Your task to perform on an android device: turn on data saver in the chrome app Image 0: 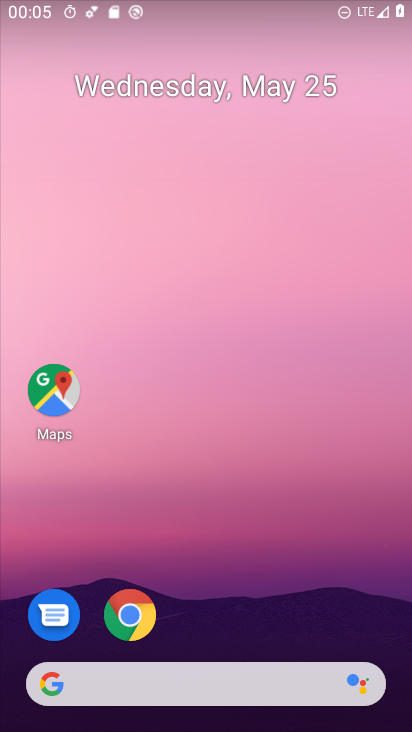
Step 0: drag from (322, 663) to (366, 17)
Your task to perform on an android device: turn on data saver in the chrome app Image 1: 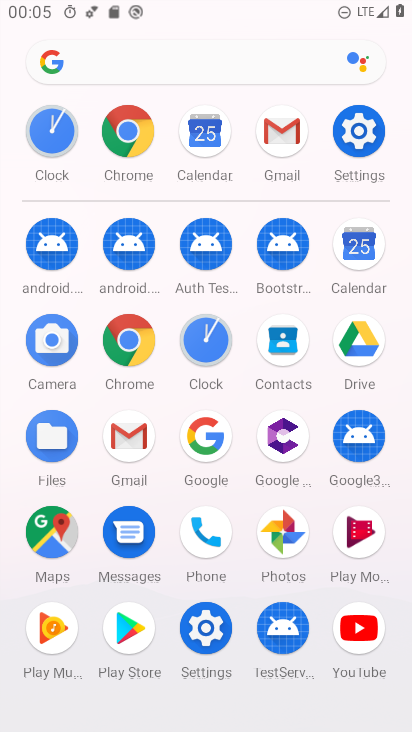
Step 1: click (136, 149)
Your task to perform on an android device: turn on data saver in the chrome app Image 2: 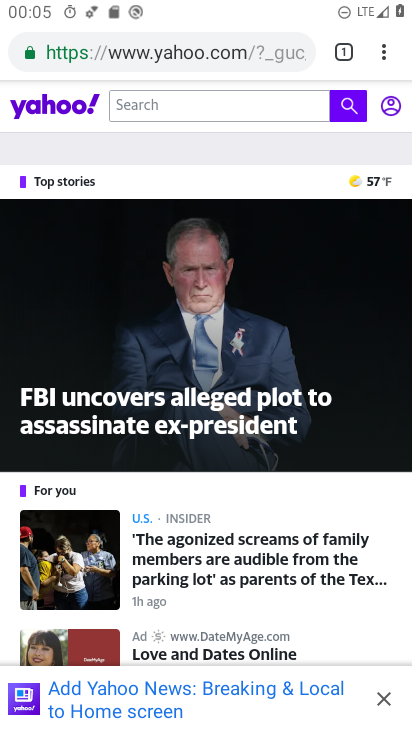
Step 2: click (376, 62)
Your task to perform on an android device: turn on data saver in the chrome app Image 3: 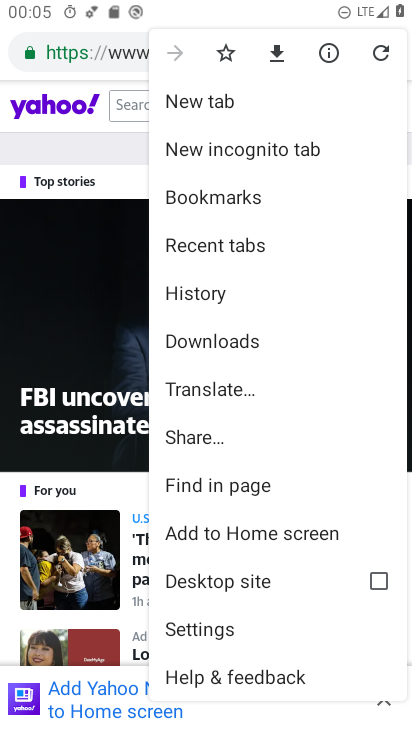
Step 3: click (214, 629)
Your task to perform on an android device: turn on data saver in the chrome app Image 4: 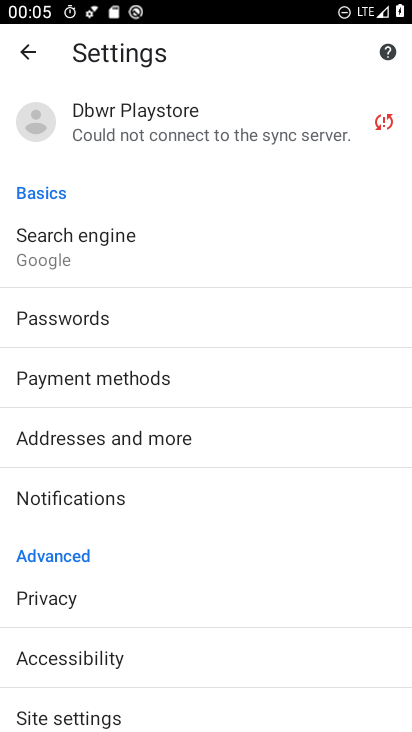
Step 4: drag from (202, 608) to (256, 343)
Your task to perform on an android device: turn on data saver in the chrome app Image 5: 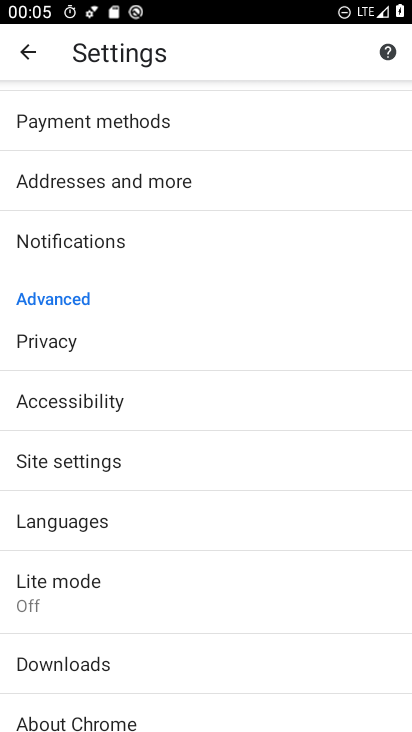
Step 5: click (76, 593)
Your task to perform on an android device: turn on data saver in the chrome app Image 6: 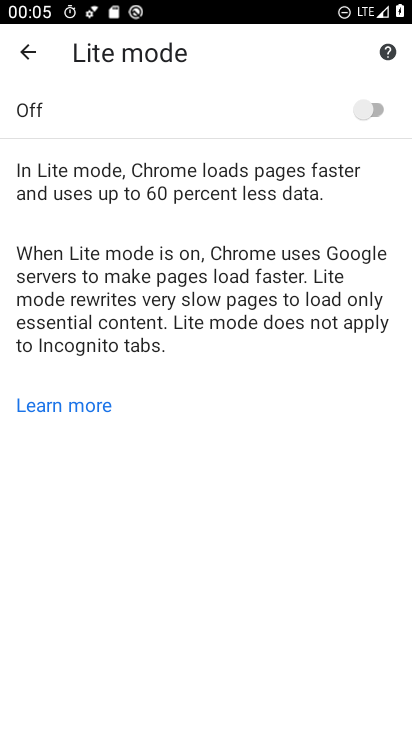
Step 6: click (369, 118)
Your task to perform on an android device: turn on data saver in the chrome app Image 7: 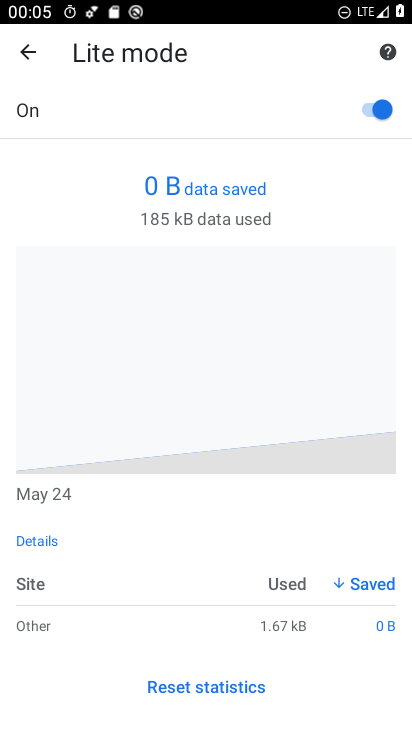
Step 7: task complete